Your task to perform on an android device: turn on the 12-hour format for clock Image 0: 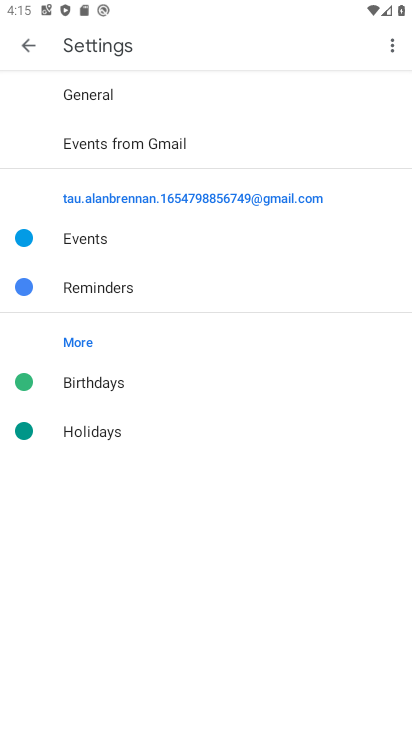
Step 0: press home button
Your task to perform on an android device: turn on the 12-hour format for clock Image 1: 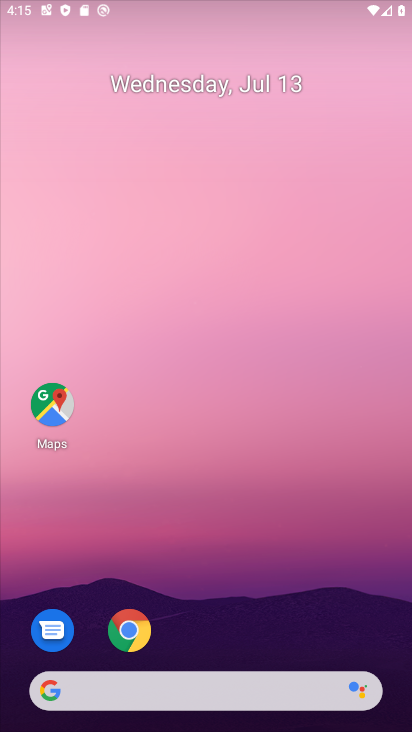
Step 1: drag from (317, 624) to (333, 90)
Your task to perform on an android device: turn on the 12-hour format for clock Image 2: 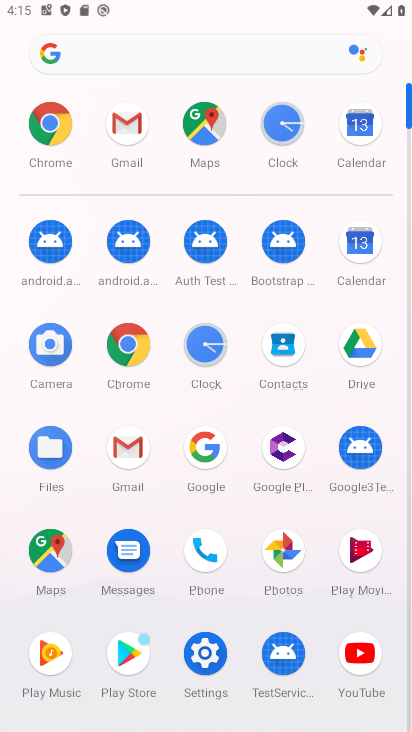
Step 2: click (211, 346)
Your task to perform on an android device: turn on the 12-hour format for clock Image 3: 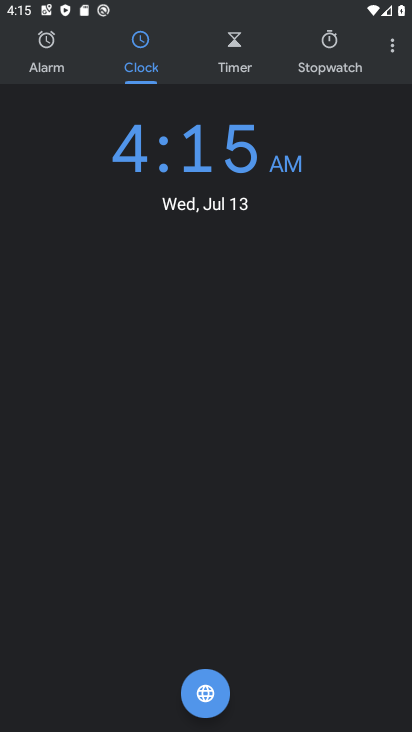
Step 3: click (389, 41)
Your task to perform on an android device: turn on the 12-hour format for clock Image 4: 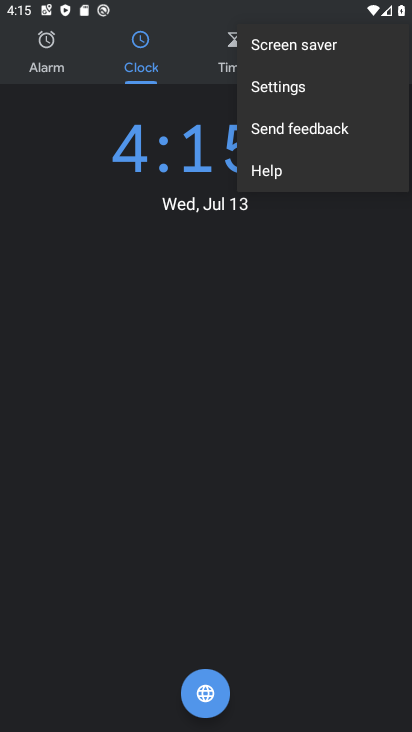
Step 4: click (313, 97)
Your task to perform on an android device: turn on the 12-hour format for clock Image 5: 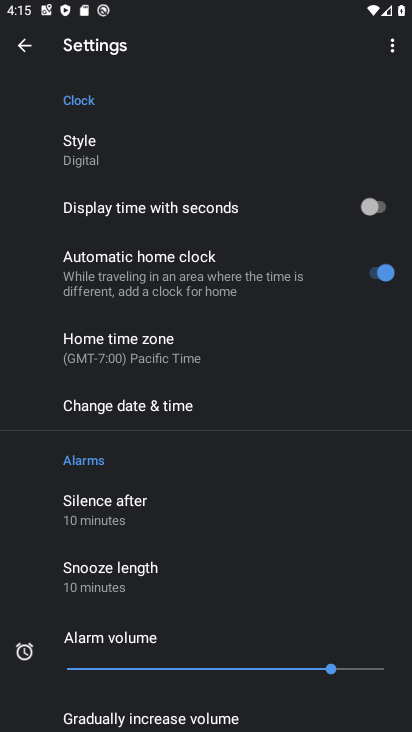
Step 5: click (162, 406)
Your task to perform on an android device: turn on the 12-hour format for clock Image 6: 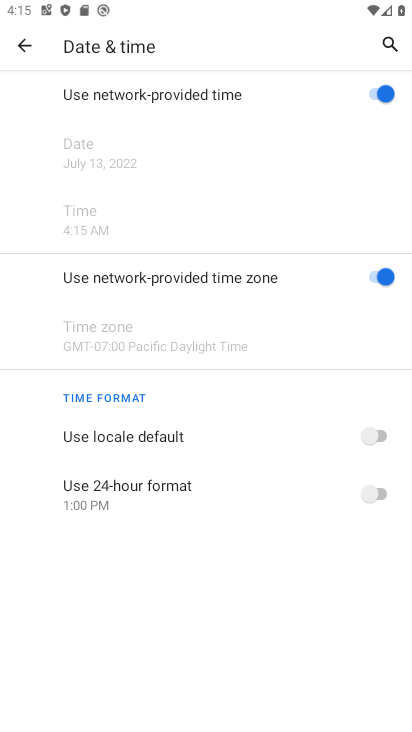
Step 6: task complete